Your task to perform on an android device: set the stopwatch Image 0: 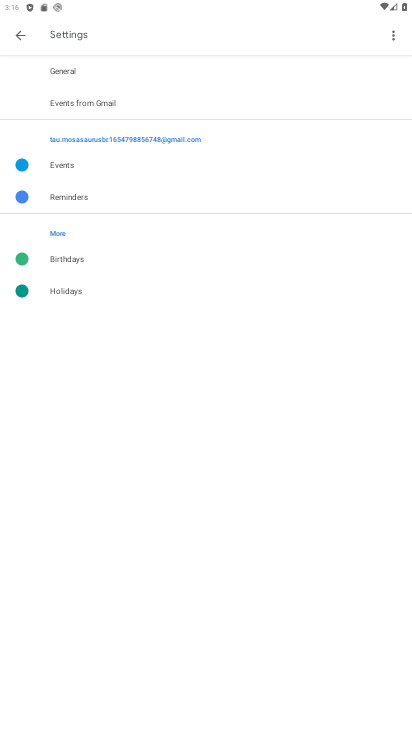
Step 0: press home button
Your task to perform on an android device: set the stopwatch Image 1: 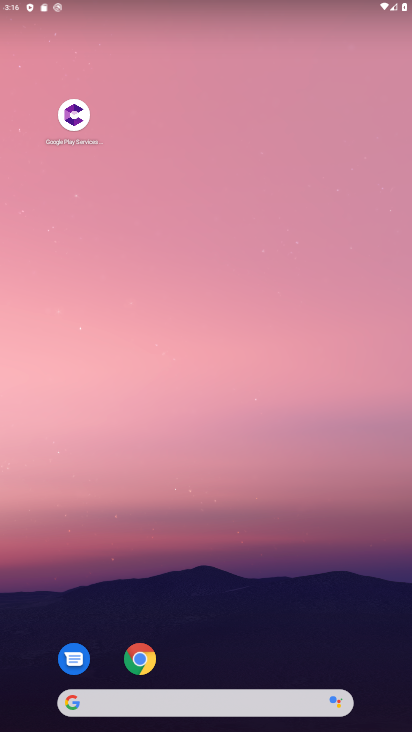
Step 1: drag from (227, 674) to (266, 53)
Your task to perform on an android device: set the stopwatch Image 2: 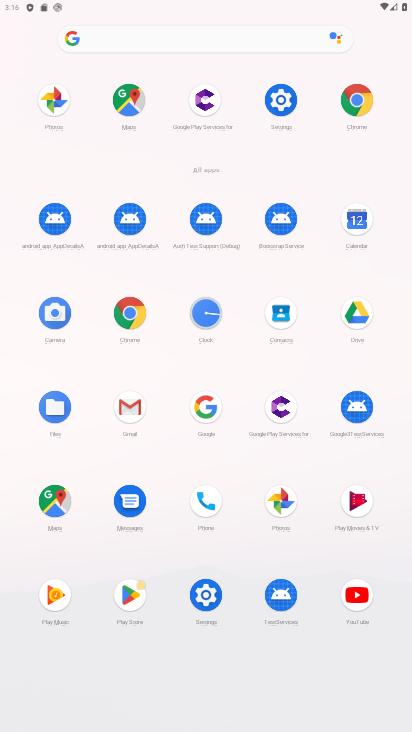
Step 2: click (207, 312)
Your task to perform on an android device: set the stopwatch Image 3: 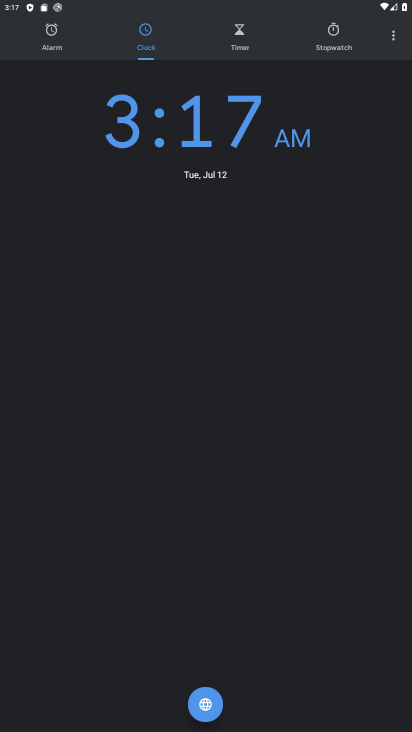
Step 3: click (327, 47)
Your task to perform on an android device: set the stopwatch Image 4: 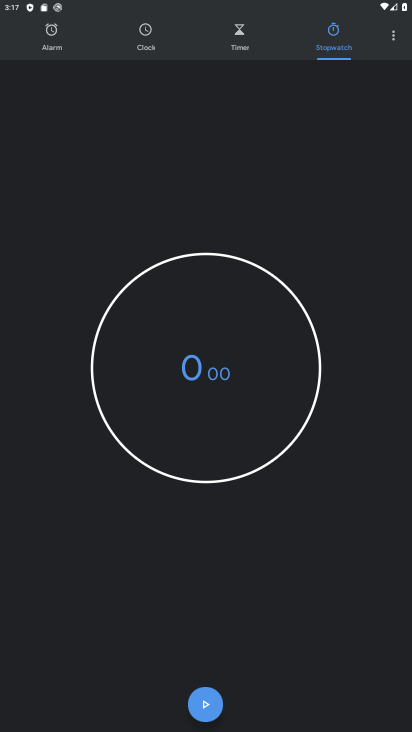
Step 4: click (204, 711)
Your task to perform on an android device: set the stopwatch Image 5: 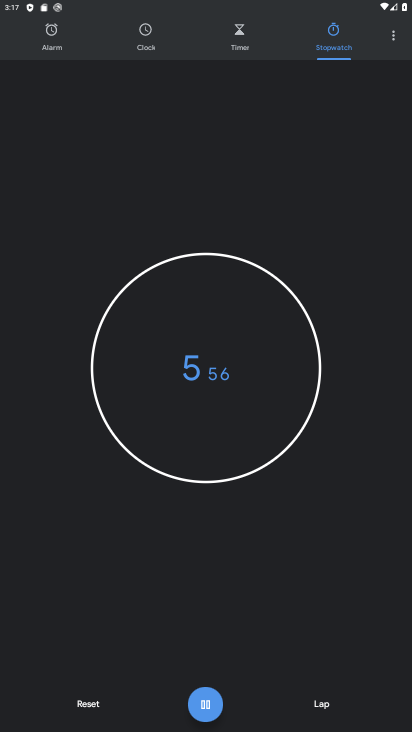
Step 5: task complete